Your task to perform on an android device: Open Google Chrome and open the bookmarks view Image 0: 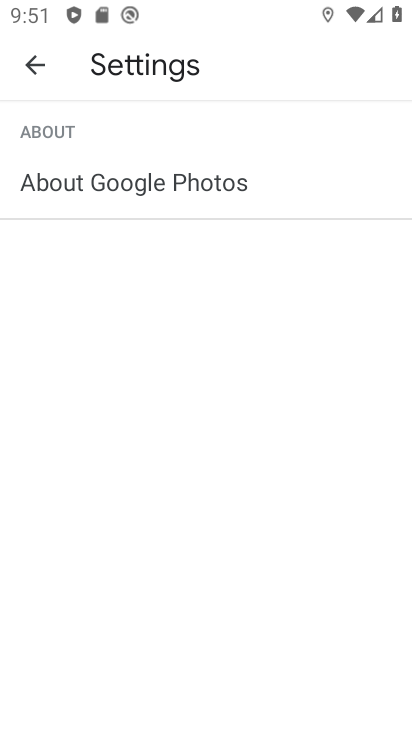
Step 0: press home button
Your task to perform on an android device: Open Google Chrome and open the bookmarks view Image 1: 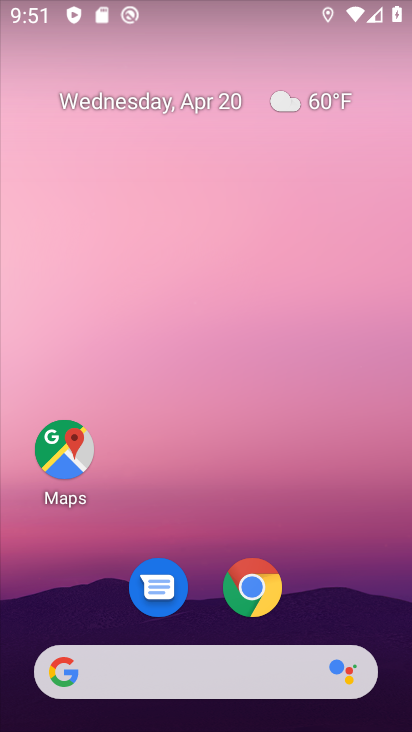
Step 1: click (255, 586)
Your task to perform on an android device: Open Google Chrome and open the bookmarks view Image 2: 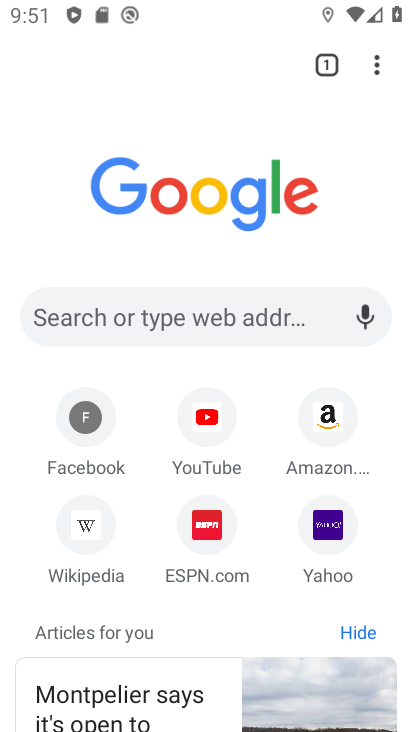
Step 2: task complete